Your task to perform on an android device: open a bookmark in the chrome app Image 0: 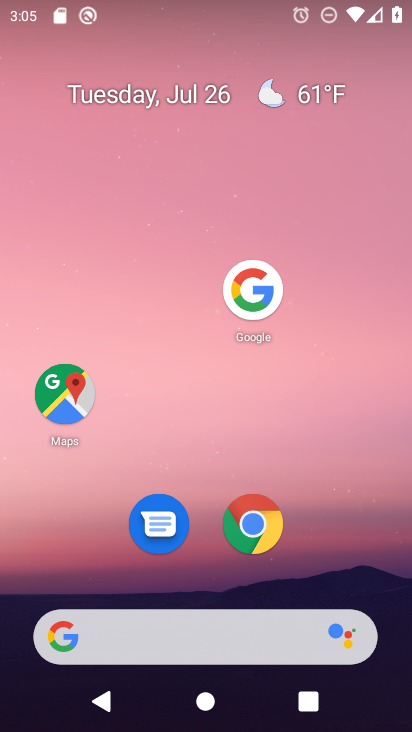
Step 0: press home button
Your task to perform on an android device: open a bookmark in the chrome app Image 1: 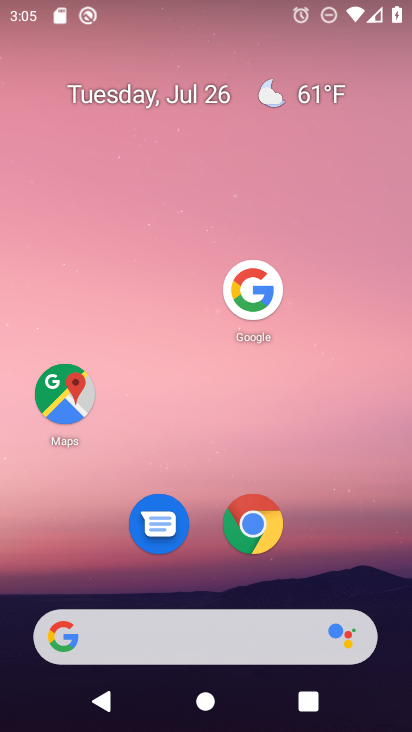
Step 1: click (250, 529)
Your task to perform on an android device: open a bookmark in the chrome app Image 2: 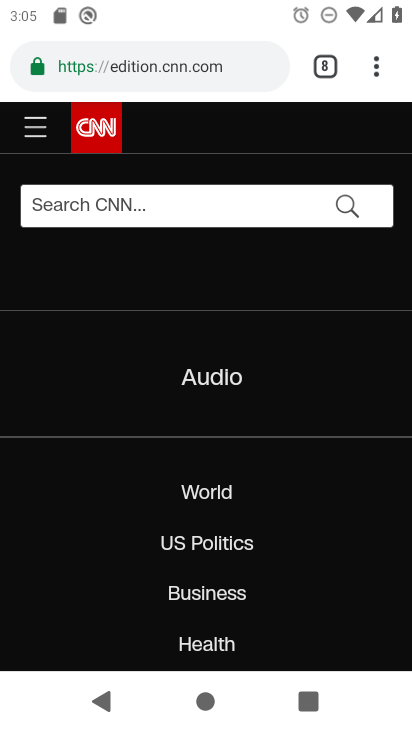
Step 2: task complete